Your task to perform on an android device: toggle airplane mode Image 0: 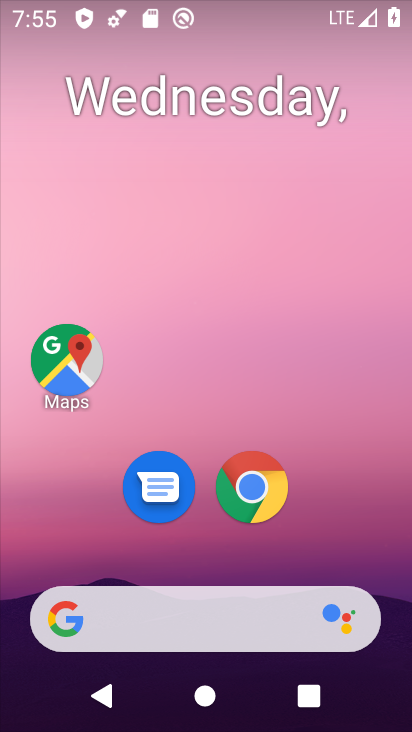
Step 0: drag from (349, 578) to (366, 0)
Your task to perform on an android device: toggle airplane mode Image 1: 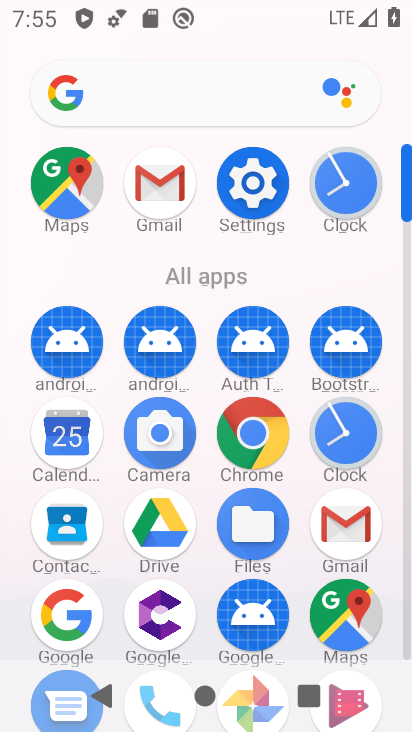
Step 1: click (249, 185)
Your task to perform on an android device: toggle airplane mode Image 2: 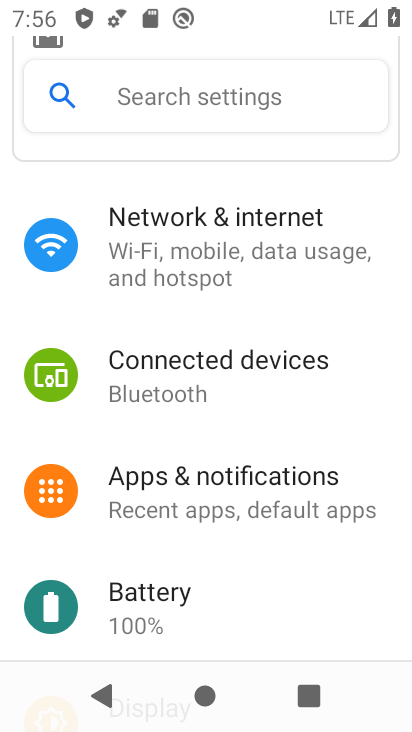
Step 2: click (205, 248)
Your task to perform on an android device: toggle airplane mode Image 3: 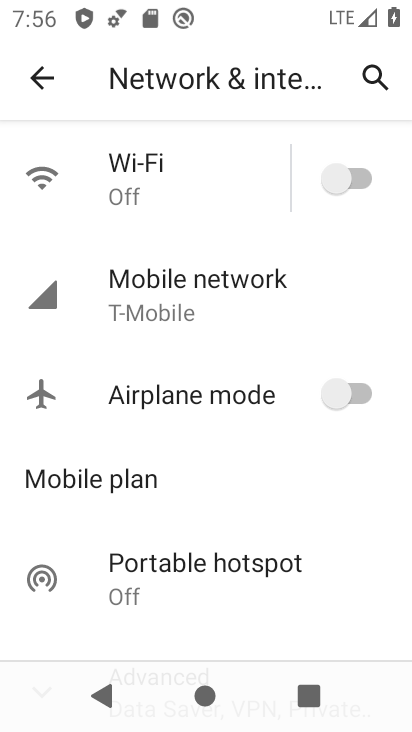
Step 3: click (336, 401)
Your task to perform on an android device: toggle airplane mode Image 4: 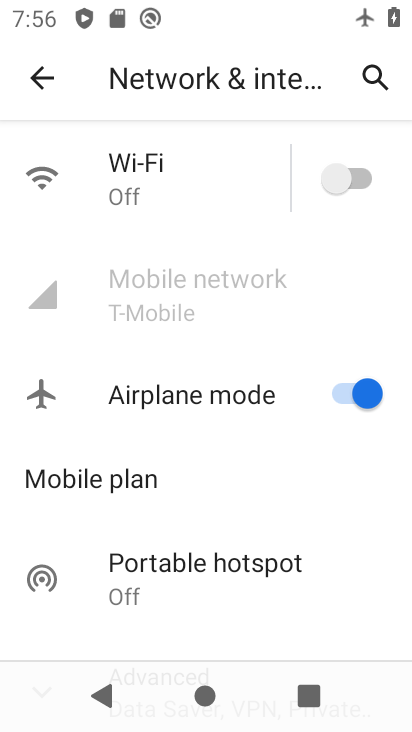
Step 4: task complete